Your task to perform on an android device: Find coffee shops on Maps Image 0: 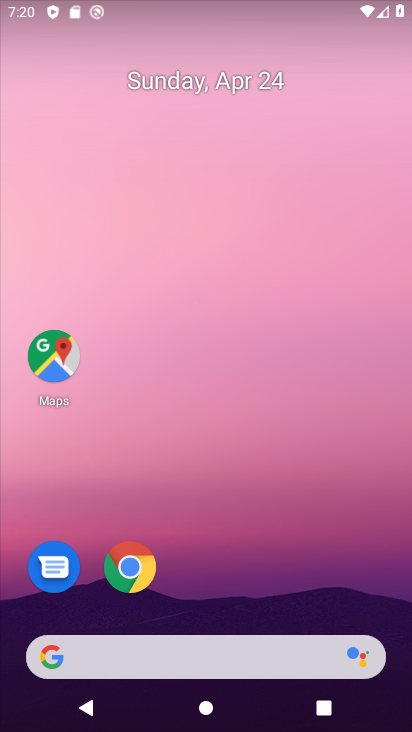
Step 0: drag from (238, 456) to (119, 52)
Your task to perform on an android device: Find coffee shops on Maps Image 1: 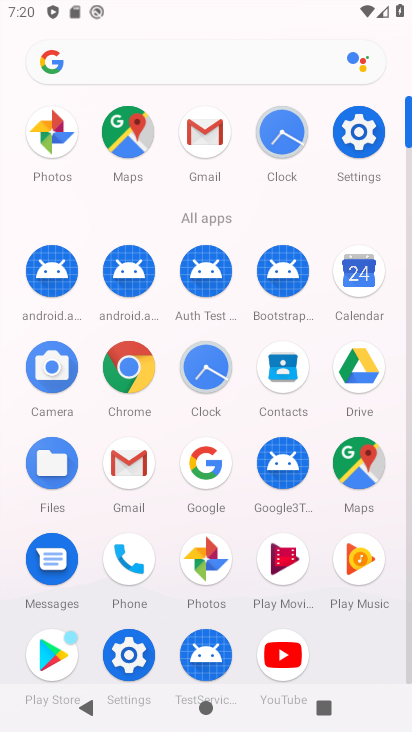
Step 1: click (126, 140)
Your task to perform on an android device: Find coffee shops on Maps Image 2: 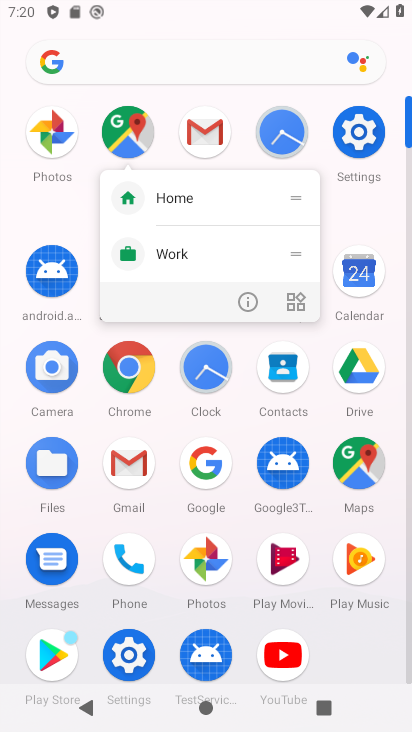
Step 2: click (126, 140)
Your task to perform on an android device: Find coffee shops on Maps Image 3: 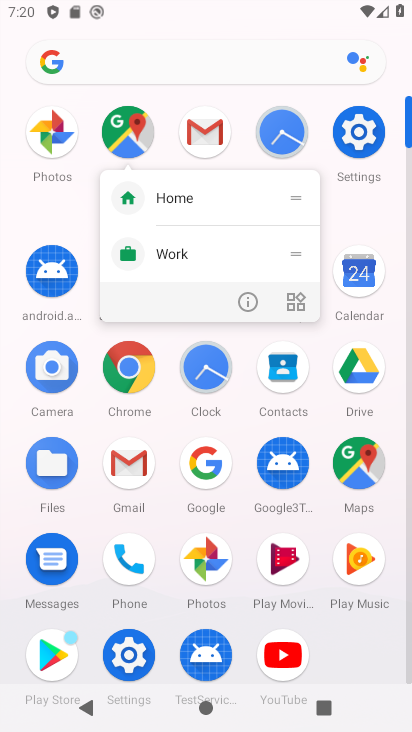
Step 3: click (126, 140)
Your task to perform on an android device: Find coffee shops on Maps Image 4: 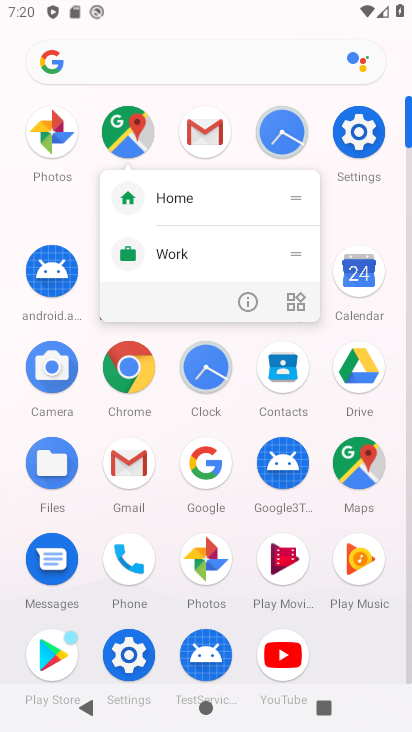
Step 4: click (126, 140)
Your task to perform on an android device: Find coffee shops on Maps Image 5: 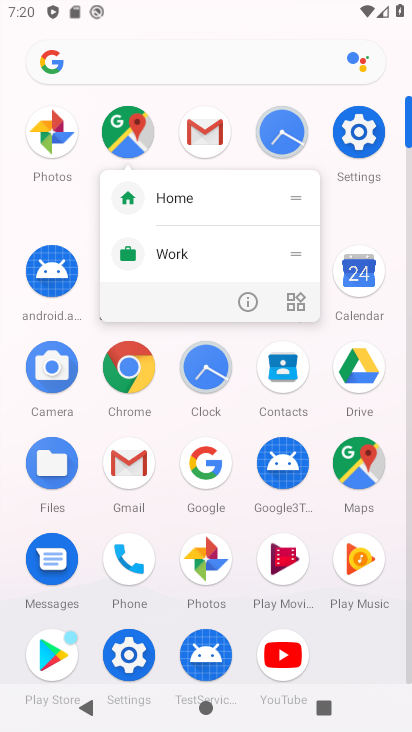
Step 5: click (126, 140)
Your task to perform on an android device: Find coffee shops on Maps Image 6: 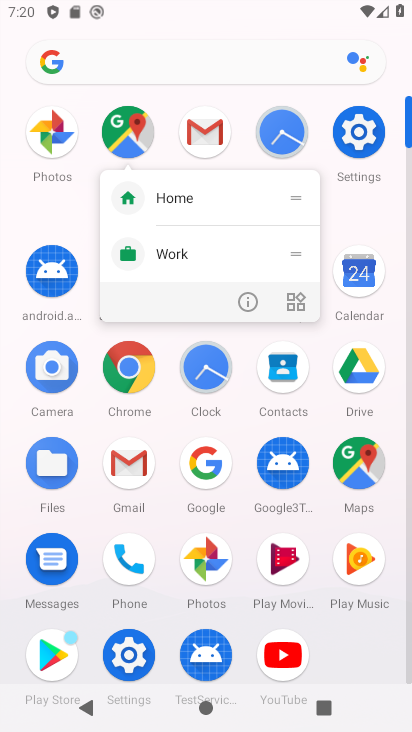
Step 6: click (126, 140)
Your task to perform on an android device: Find coffee shops on Maps Image 7: 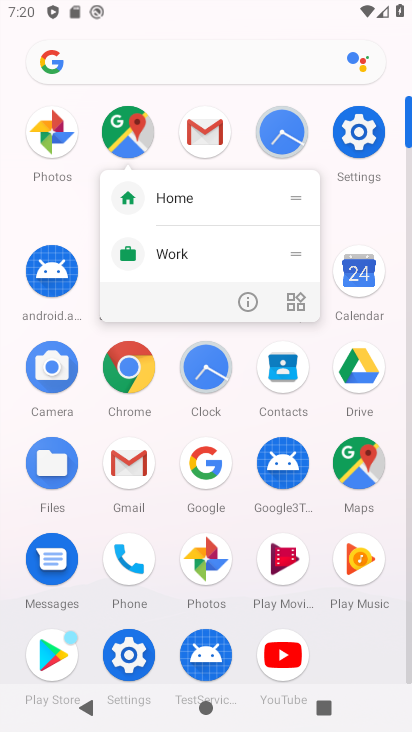
Step 7: click (126, 140)
Your task to perform on an android device: Find coffee shops on Maps Image 8: 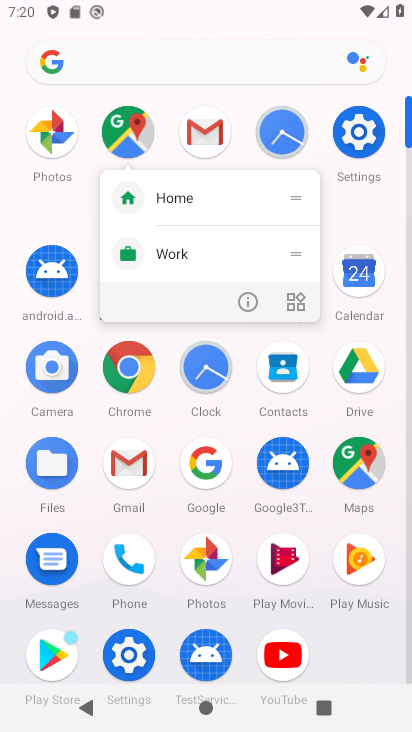
Step 8: click (126, 140)
Your task to perform on an android device: Find coffee shops on Maps Image 9: 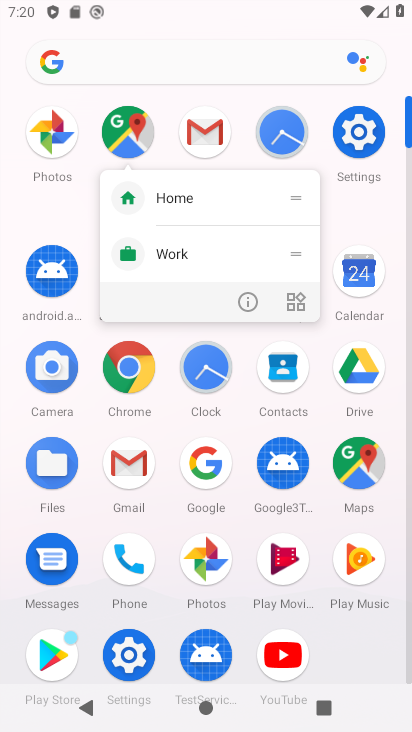
Step 9: click (126, 140)
Your task to perform on an android device: Find coffee shops on Maps Image 10: 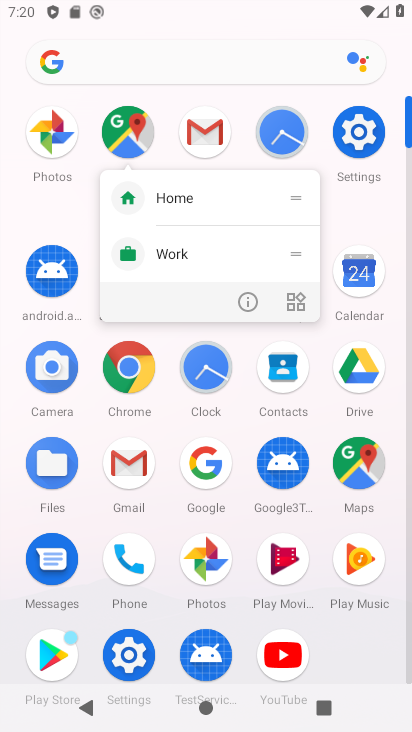
Step 10: click (126, 140)
Your task to perform on an android device: Find coffee shops on Maps Image 11: 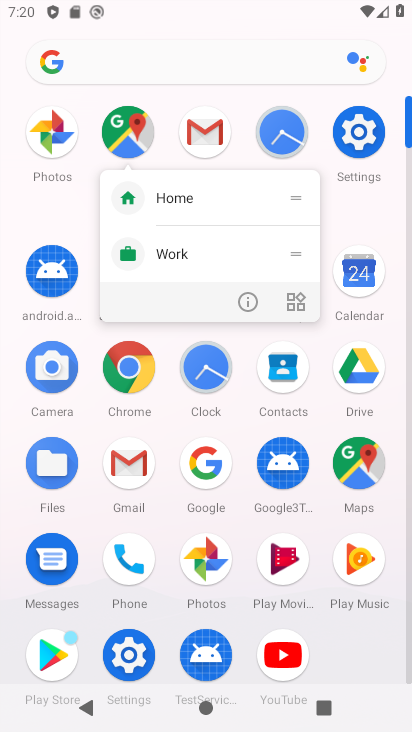
Step 11: click (126, 140)
Your task to perform on an android device: Find coffee shops on Maps Image 12: 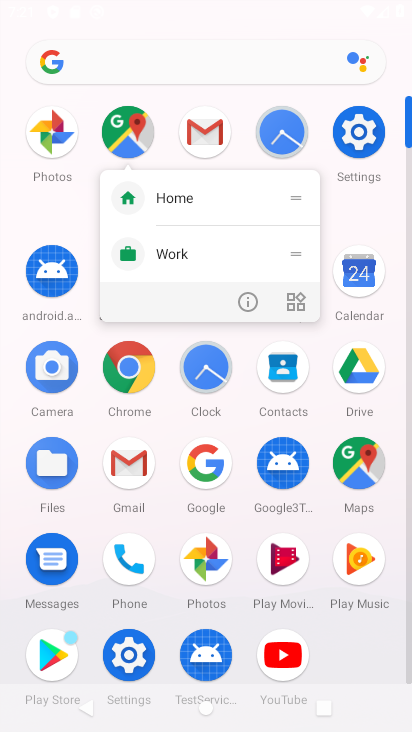
Step 12: click (126, 140)
Your task to perform on an android device: Find coffee shops on Maps Image 13: 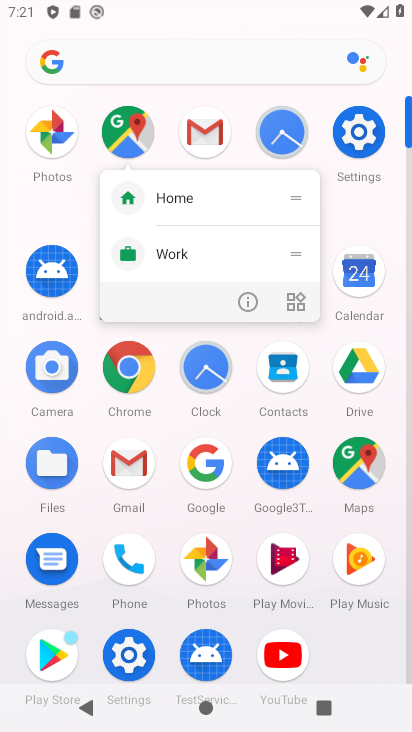
Step 13: click (126, 140)
Your task to perform on an android device: Find coffee shops on Maps Image 14: 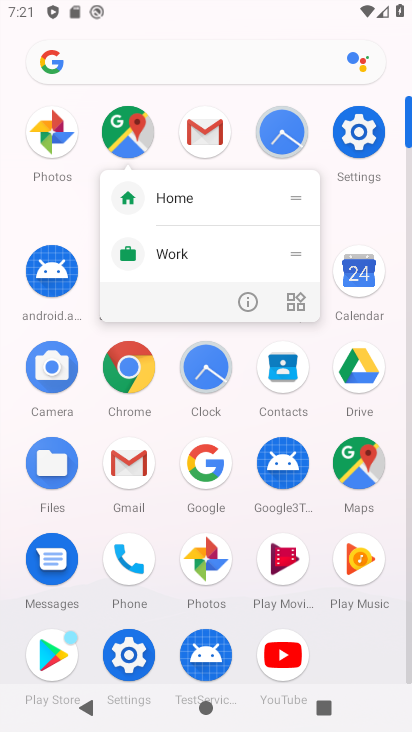
Step 14: click (126, 140)
Your task to perform on an android device: Find coffee shops on Maps Image 15: 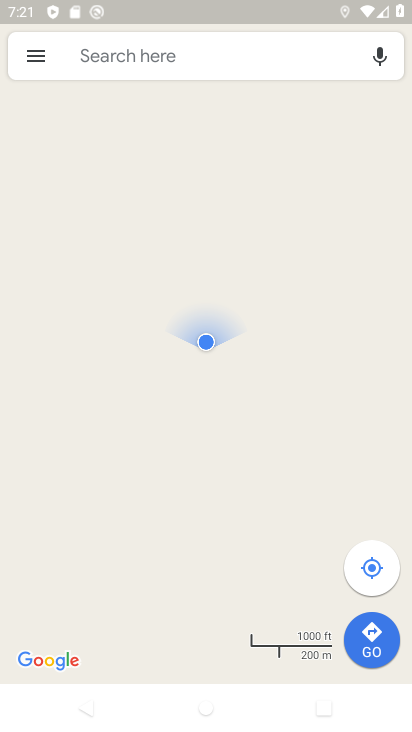
Step 15: click (207, 49)
Your task to perform on an android device: Find coffee shops on Maps Image 16: 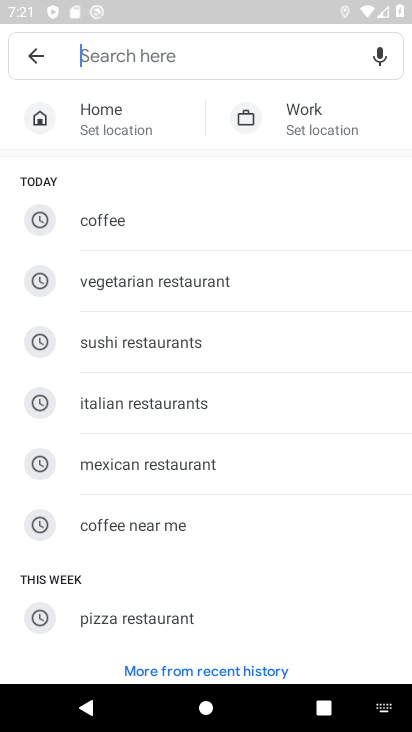
Step 16: click (98, 224)
Your task to perform on an android device: Find coffee shops on Maps Image 17: 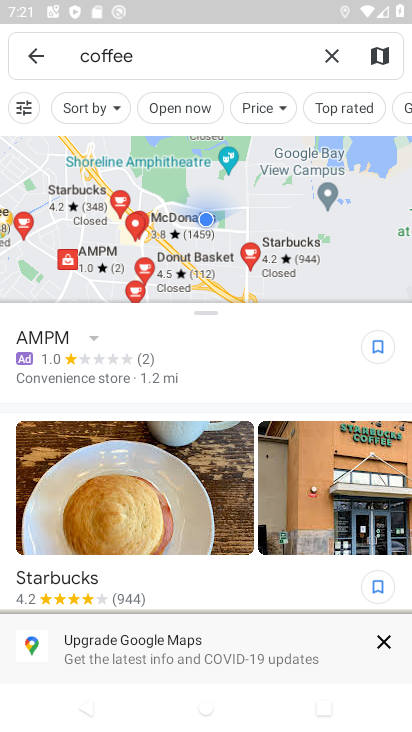
Step 17: task complete